Your task to perform on an android device: turn notification dots on Image 0: 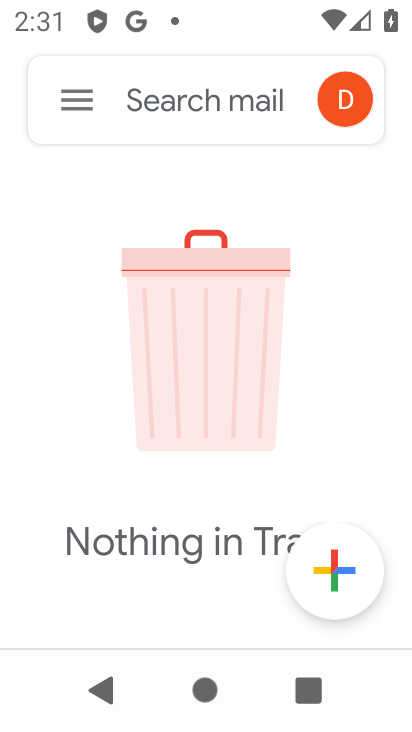
Step 0: press home button
Your task to perform on an android device: turn notification dots on Image 1: 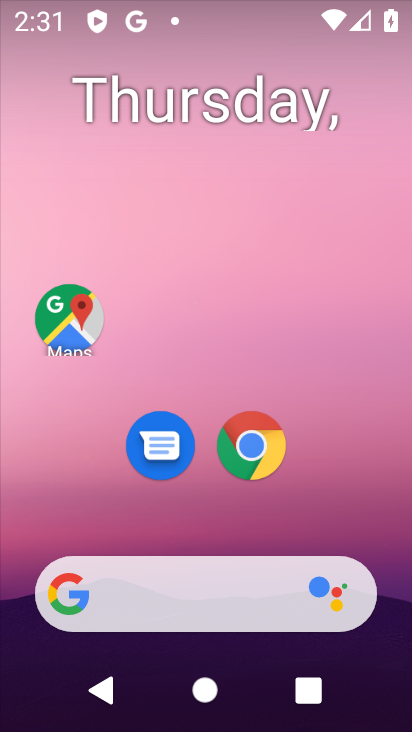
Step 1: drag from (231, 504) to (253, 144)
Your task to perform on an android device: turn notification dots on Image 2: 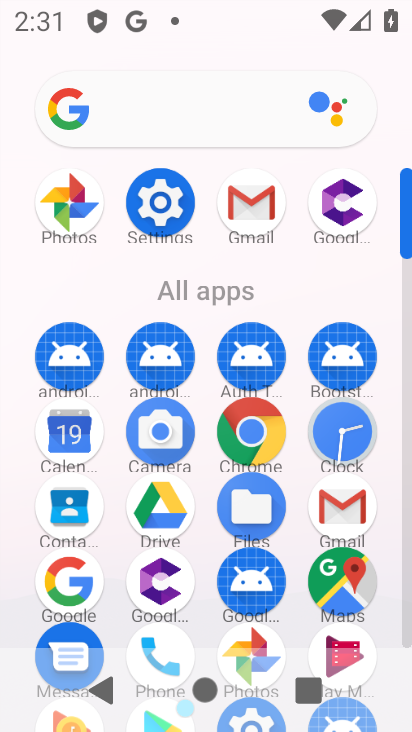
Step 2: click (156, 206)
Your task to perform on an android device: turn notification dots on Image 3: 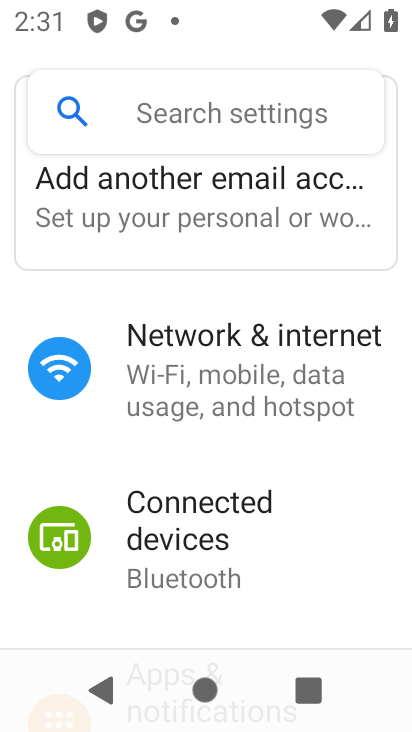
Step 3: drag from (179, 490) to (208, 261)
Your task to perform on an android device: turn notification dots on Image 4: 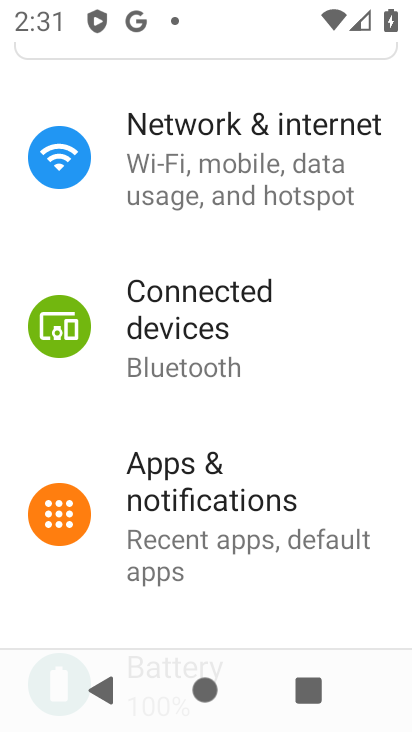
Step 4: click (169, 508)
Your task to perform on an android device: turn notification dots on Image 5: 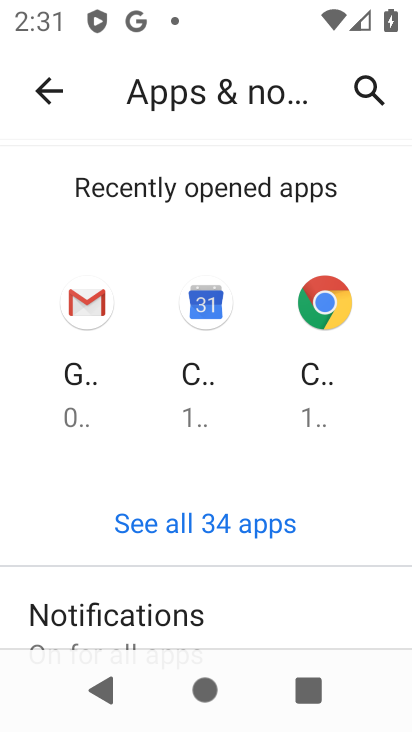
Step 5: drag from (258, 574) to (281, 361)
Your task to perform on an android device: turn notification dots on Image 6: 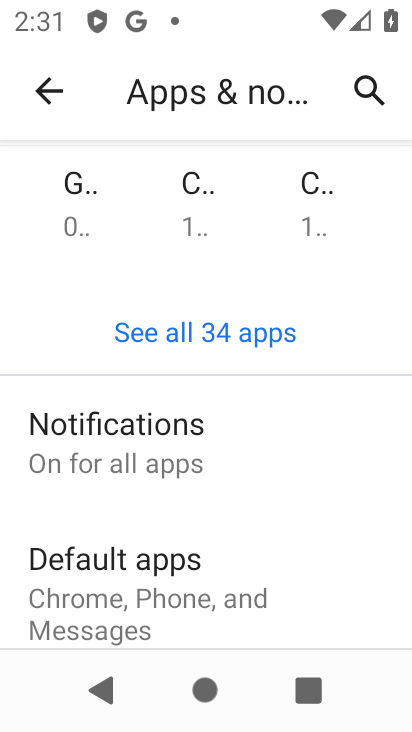
Step 6: drag from (189, 588) to (198, 379)
Your task to perform on an android device: turn notification dots on Image 7: 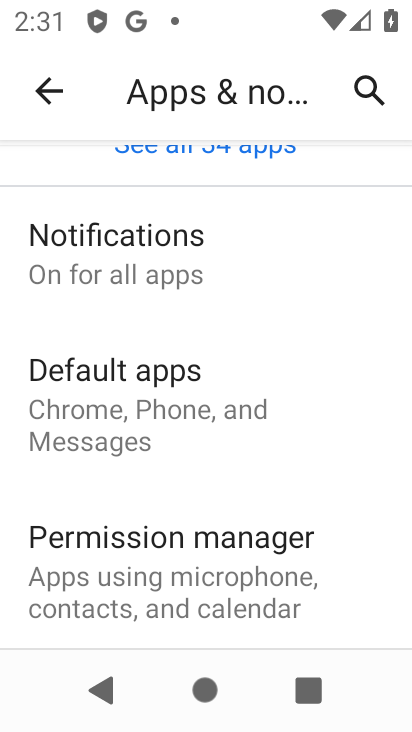
Step 7: click (146, 292)
Your task to perform on an android device: turn notification dots on Image 8: 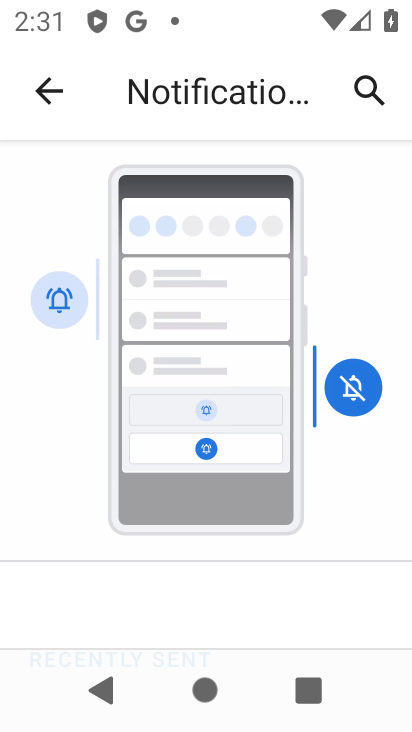
Step 8: drag from (226, 479) to (232, 248)
Your task to perform on an android device: turn notification dots on Image 9: 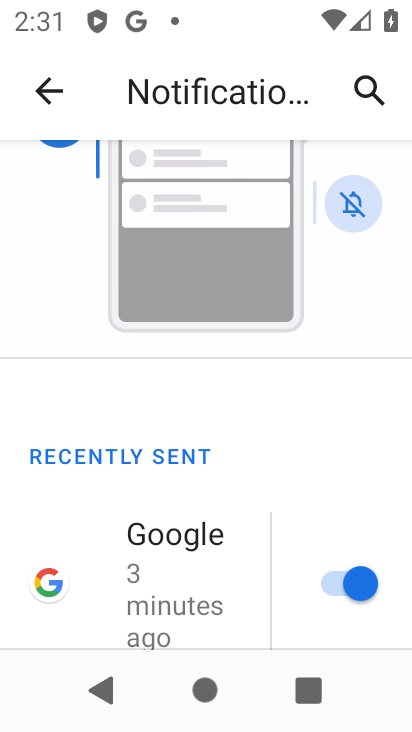
Step 9: drag from (171, 478) to (204, 154)
Your task to perform on an android device: turn notification dots on Image 10: 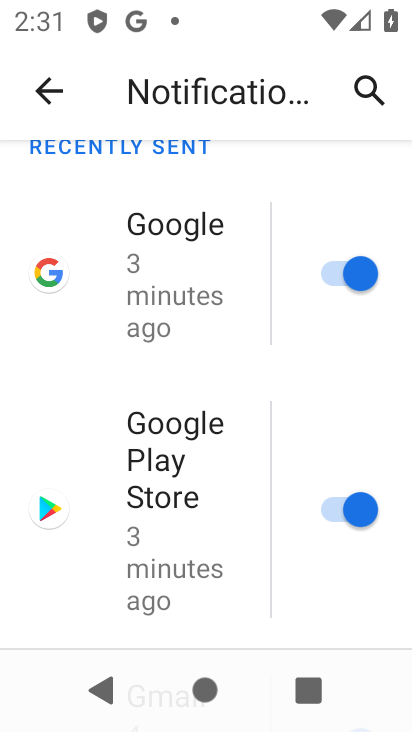
Step 10: drag from (172, 479) to (191, 227)
Your task to perform on an android device: turn notification dots on Image 11: 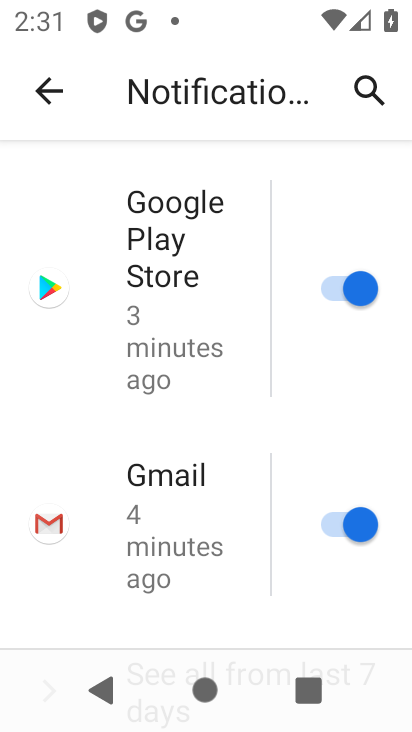
Step 11: drag from (168, 544) to (192, 223)
Your task to perform on an android device: turn notification dots on Image 12: 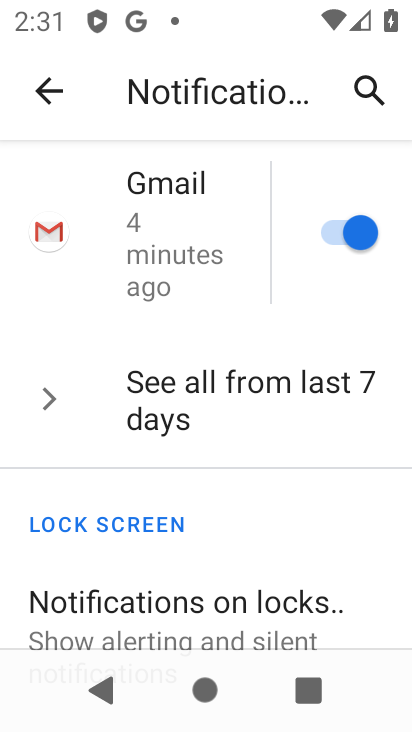
Step 12: drag from (201, 599) to (266, 264)
Your task to perform on an android device: turn notification dots on Image 13: 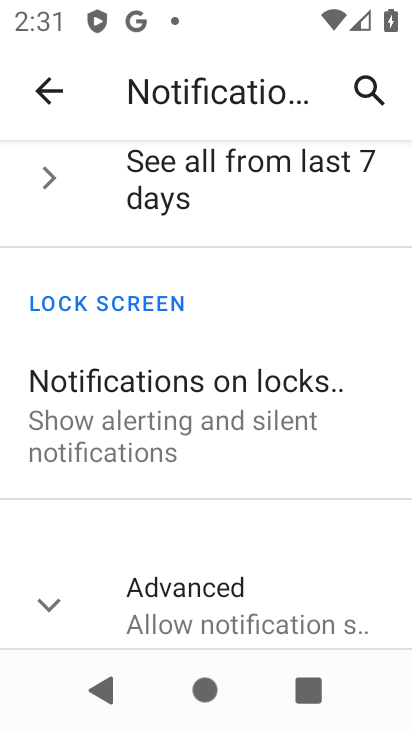
Step 13: click (68, 603)
Your task to perform on an android device: turn notification dots on Image 14: 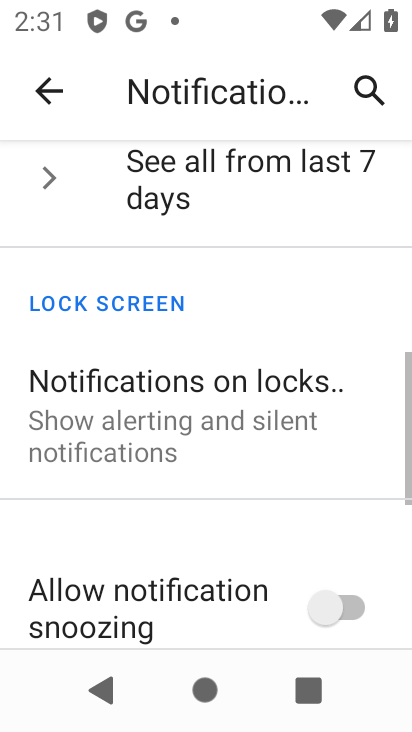
Step 14: task complete